Your task to perform on an android device: Open the map Image 0: 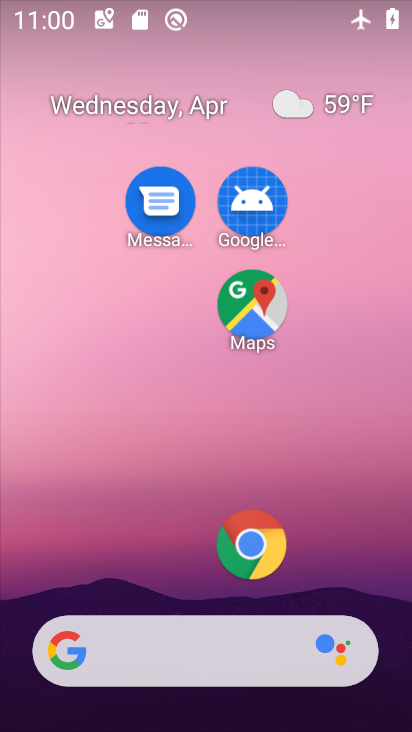
Step 0: click (234, 307)
Your task to perform on an android device: Open the map Image 1: 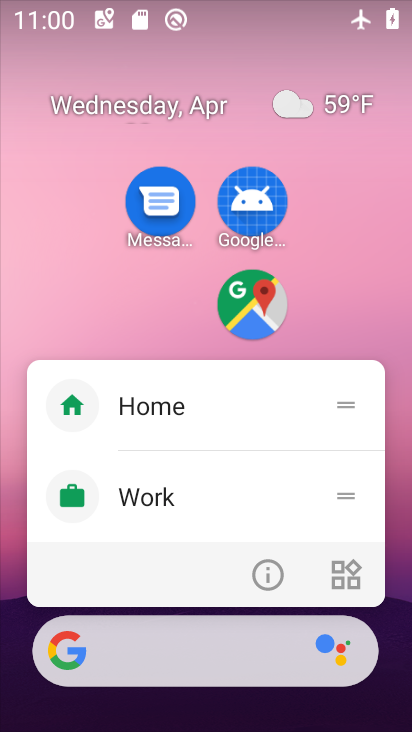
Step 1: click (234, 307)
Your task to perform on an android device: Open the map Image 2: 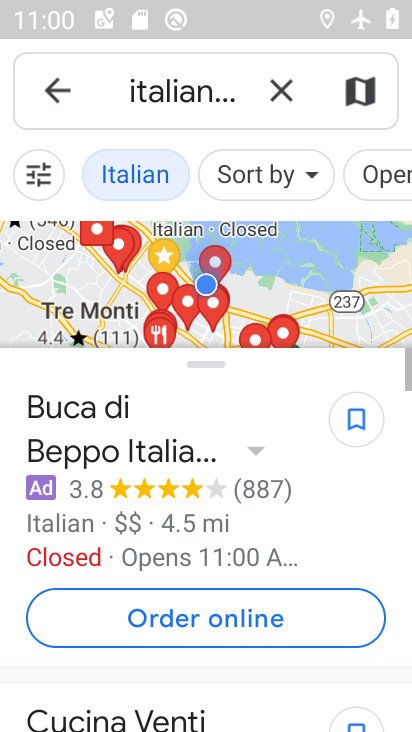
Step 2: click (57, 91)
Your task to perform on an android device: Open the map Image 3: 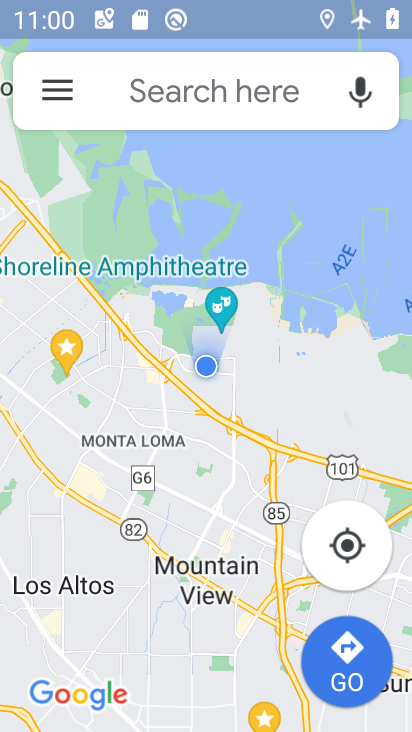
Step 3: task complete